Your task to perform on an android device: turn off javascript in the chrome app Image 0: 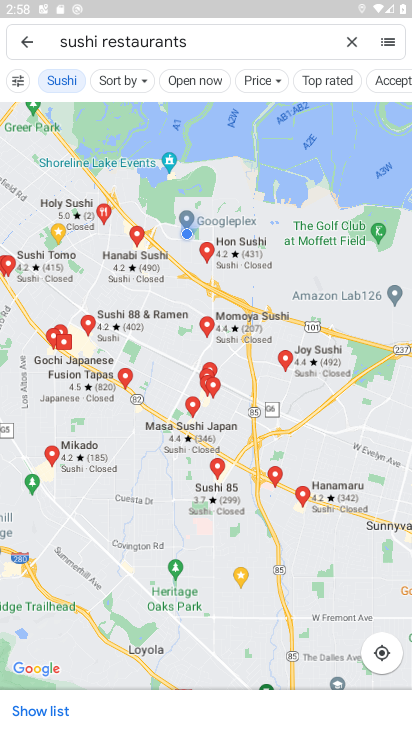
Step 0: press home button
Your task to perform on an android device: turn off javascript in the chrome app Image 1: 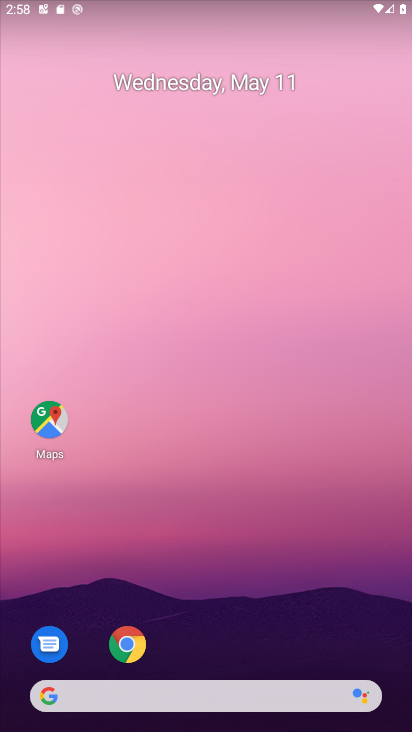
Step 1: click (133, 642)
Your task to perform on an android device: turn off javascript in the chrome app Image 2: 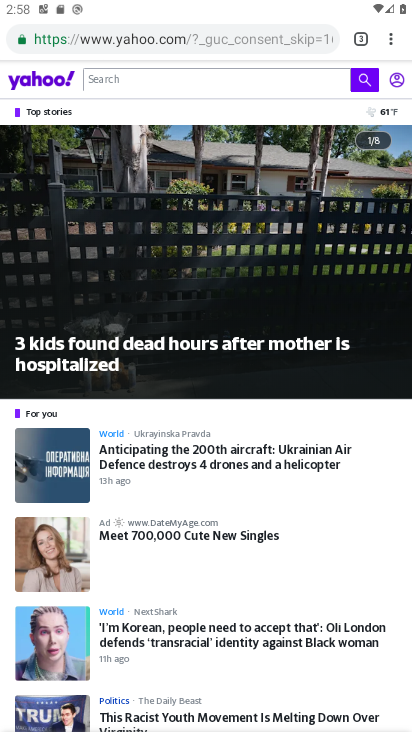
Step 2: click (381, 40)
Your task to perform on an android device: turn off javascript in the chrome app Image 3: 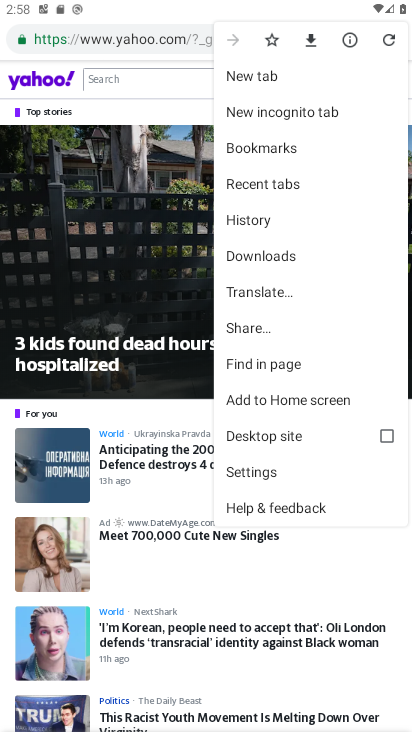
Step 3: click (241, 476)
Your task to perform on an android device: turn off javascript in the chrome app Image 4: 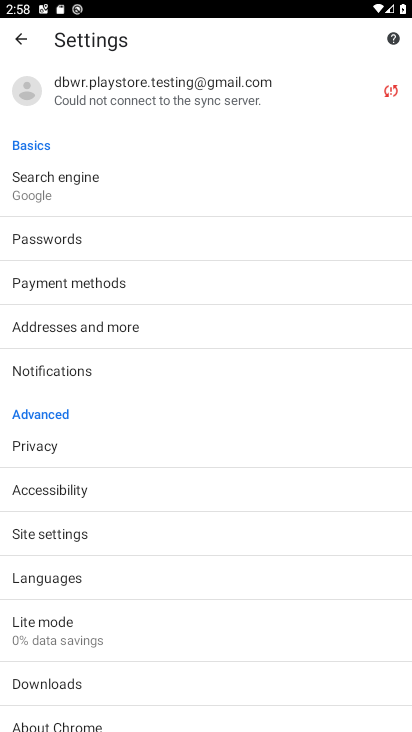
Step 4: click (53, 539)
Your task to perform on an android device: turn off javascript in the chrome app Image 5: 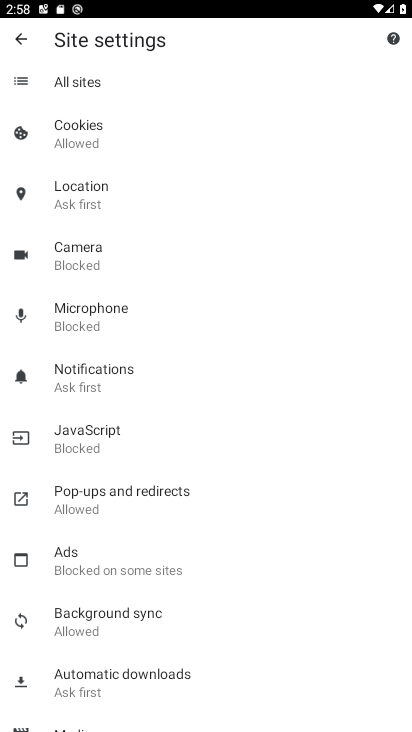
Step 5: click (79, 437)
Your task to perform on an android device: turn off javascript in the chrome app Image 6: 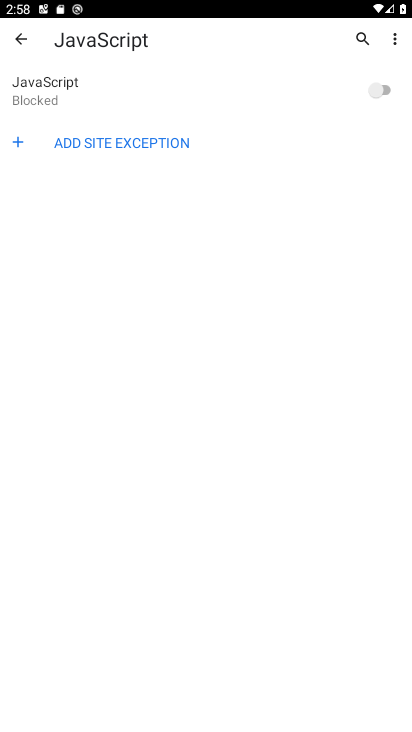
Step 6: task complete